Your task to perform on an android device: visit the assistant section in the google photos Image 0: 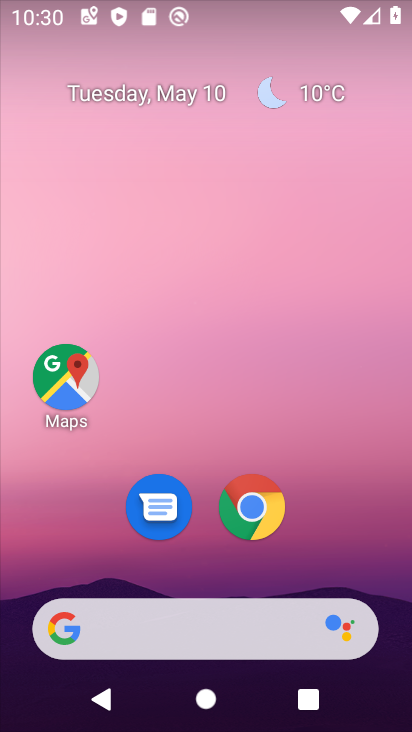
Step 0: drag from (370, 553) to (397, 376)
Your task to perform on an android device: visit the assistant section in the google photos Image 1: 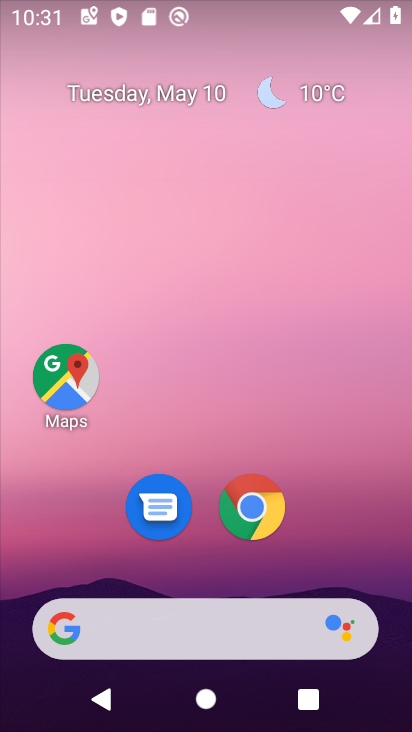
Step 1: drag from (284, 586) to (351, 134)
Your task to perform on an android device: visit the assistant section in the google photos Image 2: 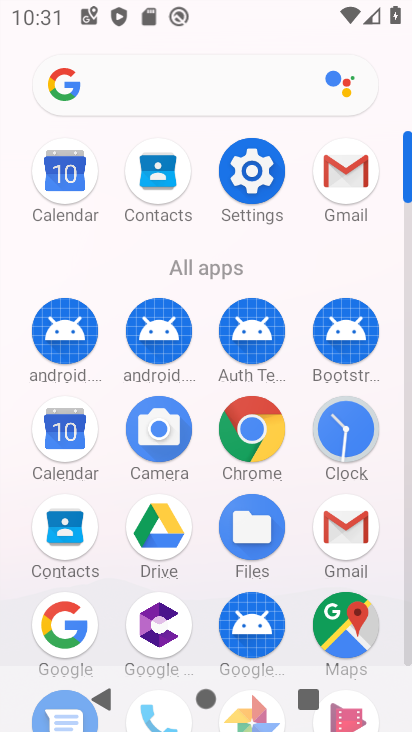
Step 2: drag from (247, 617) to (261, 323)
Your task to perform on an android device: visit the assistant section in the google photos Image 3: 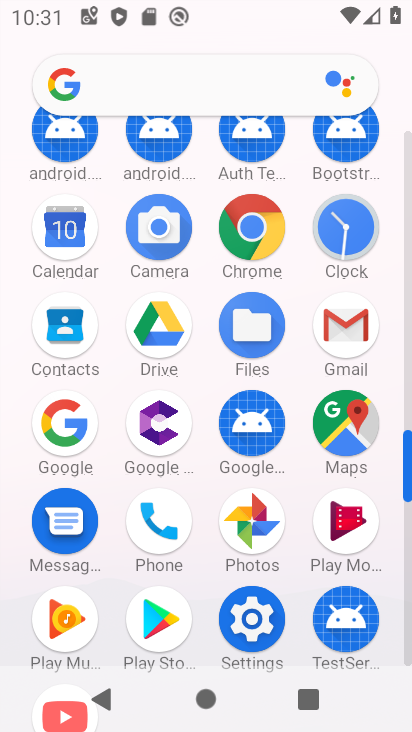
Step 3: click (261, 538)
Your task to perform on an android device: visit the assistant section in the google photos Image 4: 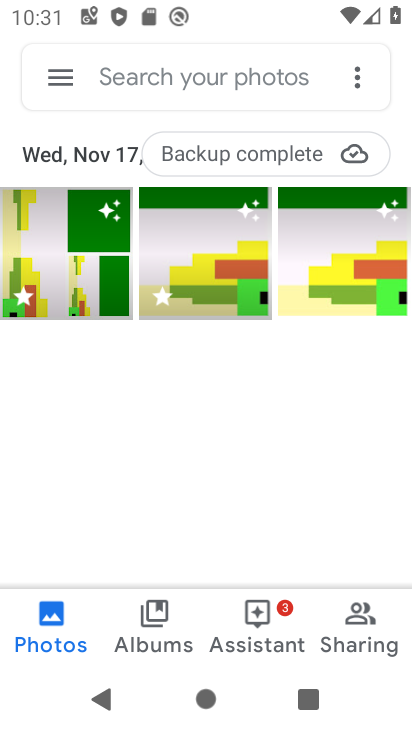
Step 4: click (268, 638)
Your task to perform on an android device: visit the assistant section in the google photos Image 5: 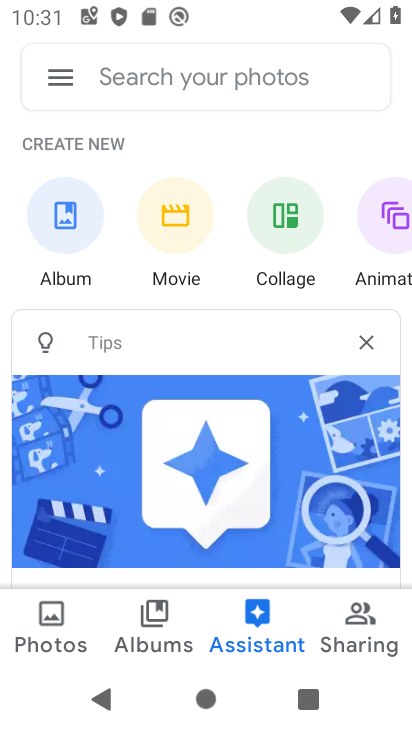
Step 5: task complete